Your task to perform on an android device: Open maps Image 0: 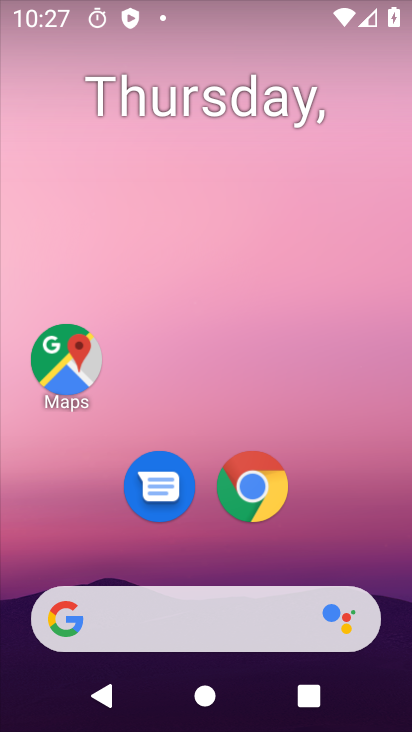
Step 0: click (55, 350)
Your task to perform on an android device: Open maps Image 1: 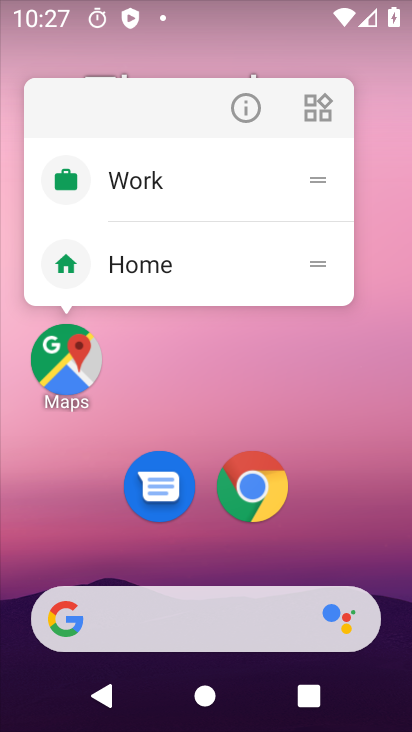
Step 1: click (68, 359)
Your task to perform on an android device: Open maps Image 2: 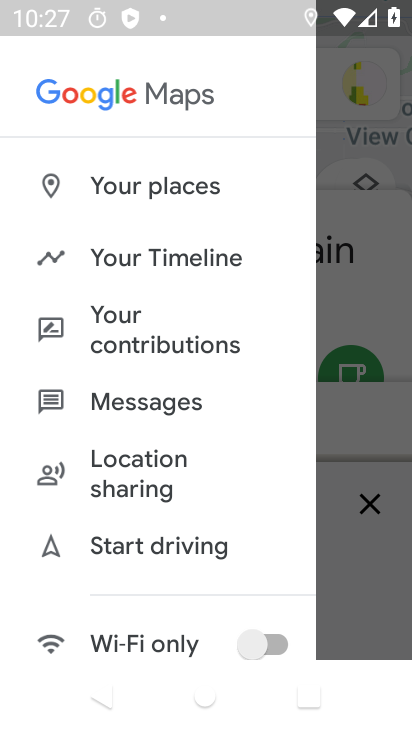
Step 2: press back button
Your task to perform on an android device: Open maps Image 3: 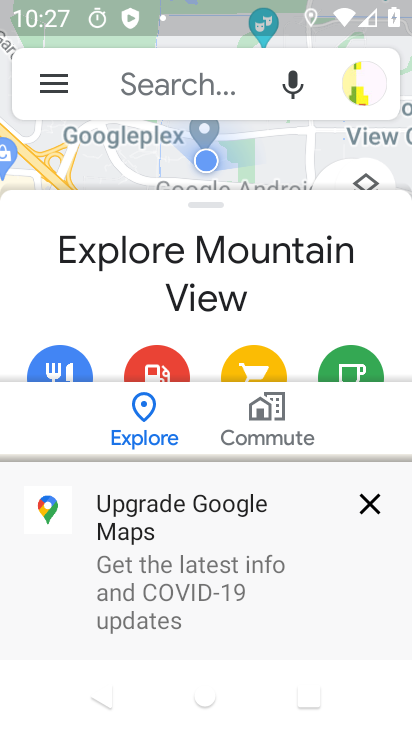
Step 3: click (360, 505)
Your task to perform on an android device: Open maps Image 4: 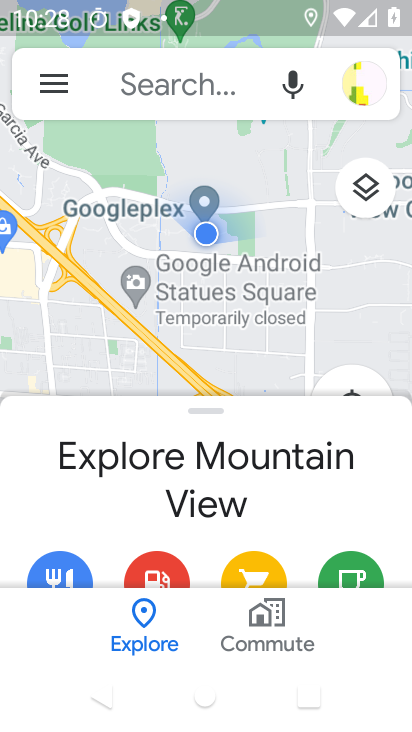
Step 4: task complete